Your task to perform on an android device: Open accessibility settings Image 0: 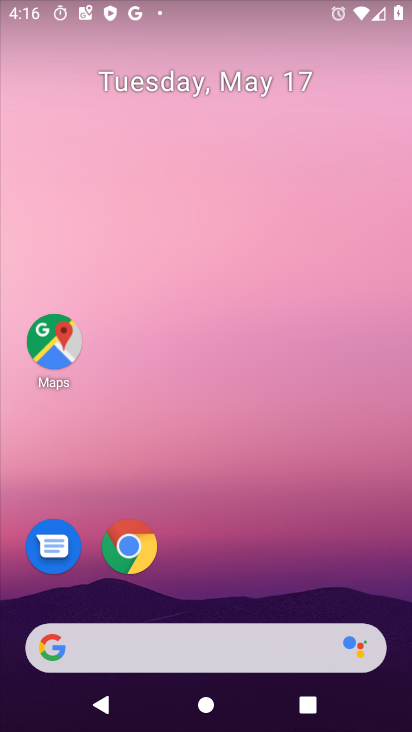
Step 0: click (365, 383)
Your task to perform on an android device: Open accessibility settings Image 1: 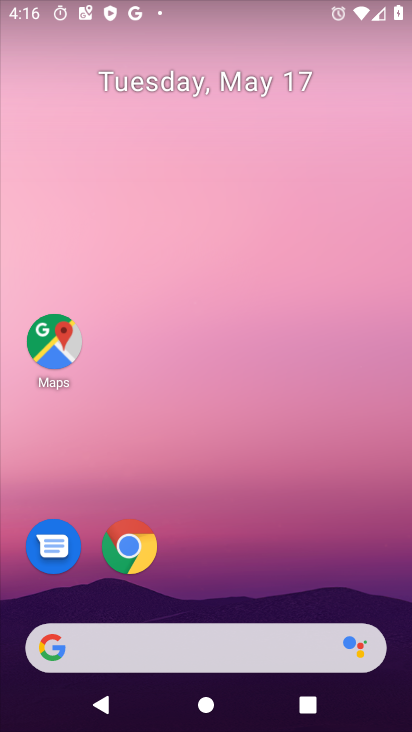
Step 1: drag from (404, 676) to (331, 304)
Your task to perform on an android device: Open accessibility settings Image 2: 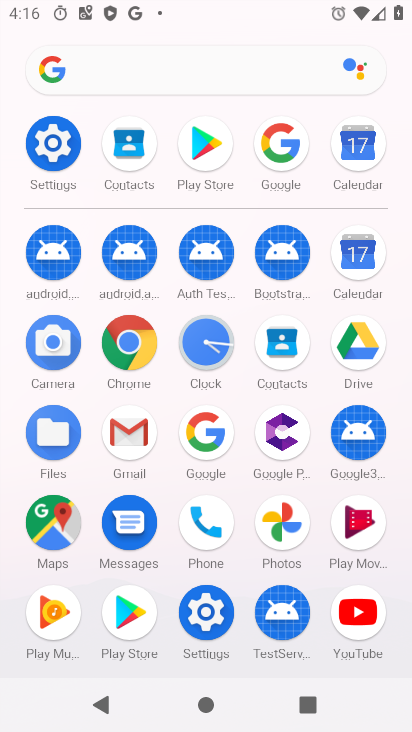
Step 2: click (57, 149)
Your task to perform on an android device: Open accessibility settings Image 3: 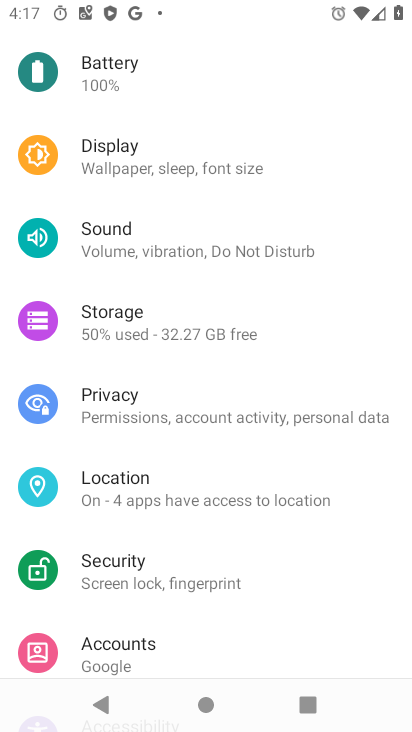
Step 3: drag from (288, 629) to (305, 390)
Your task to perform on an android device: Open accessibility settings Image 4: 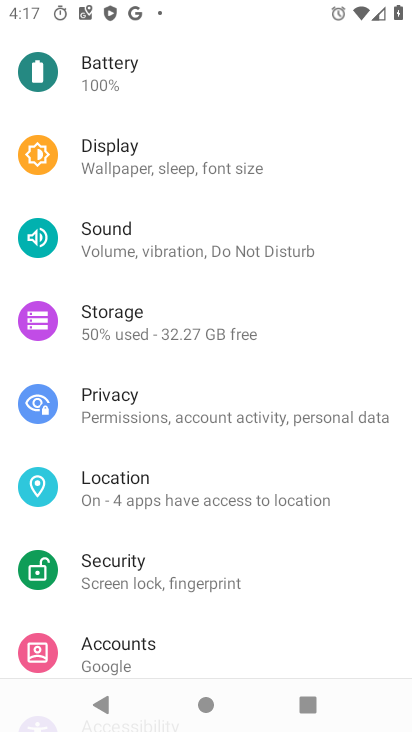
Step 4: drag from (330, 629) to (311, 346)
Your task to perform on an android device: Open accessibility settings Image 5: 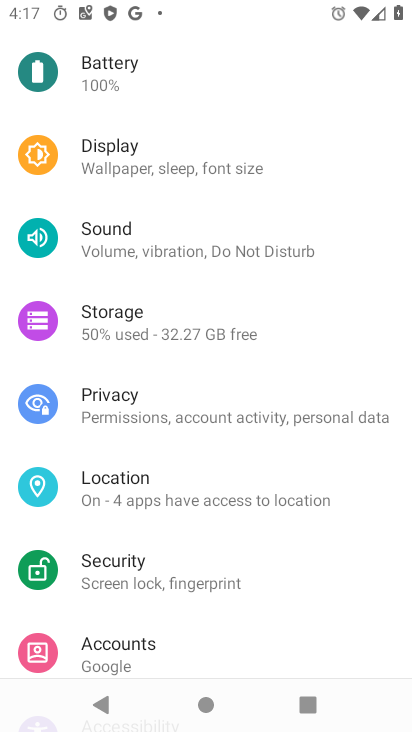
Step 5: drag from (365, 630) to (341, 291)
Your task to perform on an android device: Open accessibility settings Image 6: 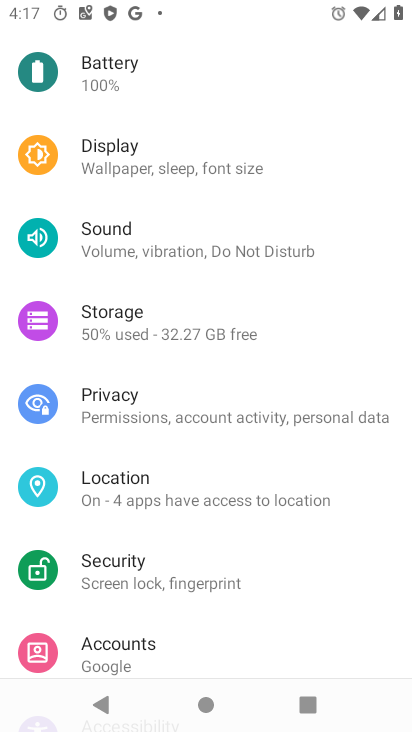
Step 6: drag from (352, 185) to (365, 443)
Your task to perform on an android device: Open accessibility settings Image 7: 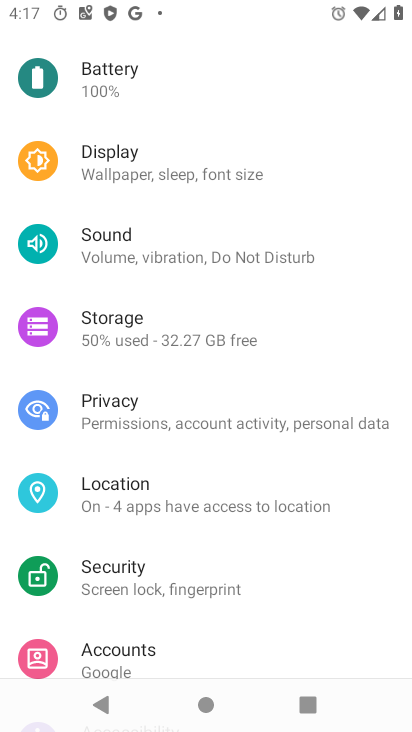
Step 7: drag from (360, 619) to (348, 300)
Your task to perform on an android device: Open accessibility settings Image 8: 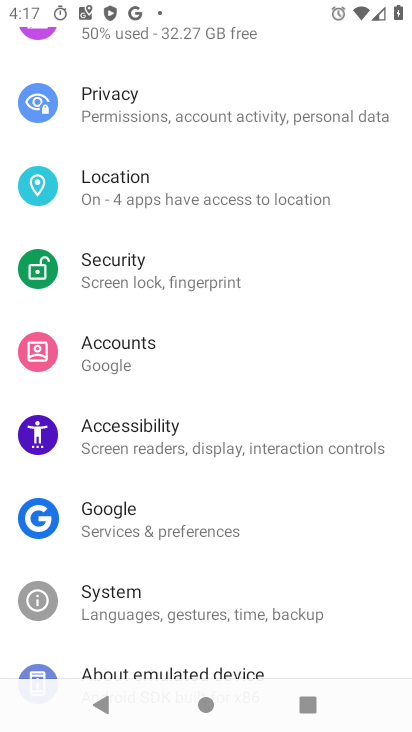
Step 8: click (103, 435)
Your task to perform on an android device: Open accessibility settings Image 9: 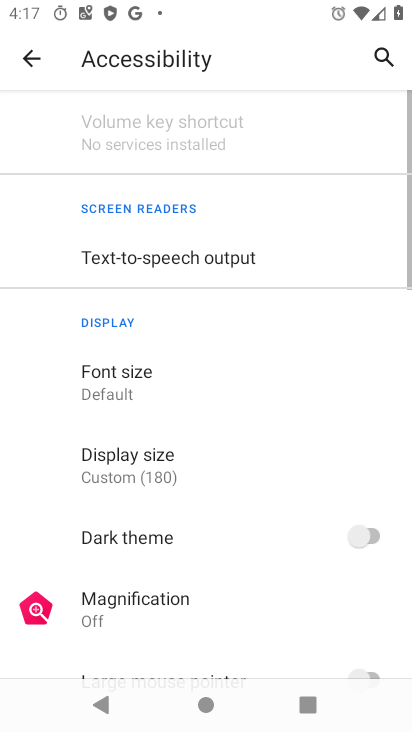
Step 9: task complete